Your task to perform on an android device: Open the calendar and show me this week's events? Image 0: 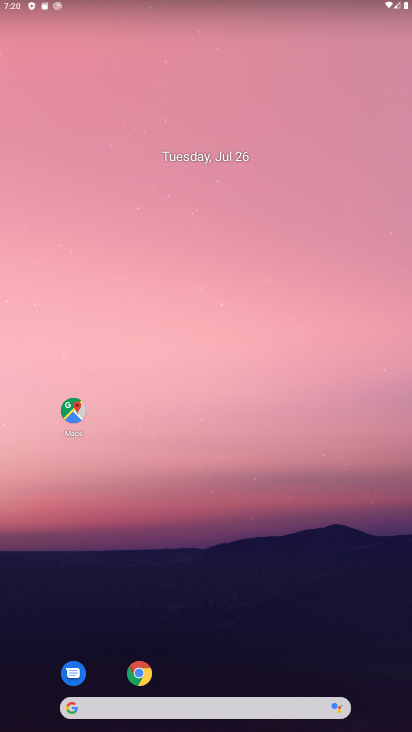
Step 0: drag from (326, 628) to (193, 49)
Your task to perform on an android device: Open the calendar and show me this week's events? Image 1: 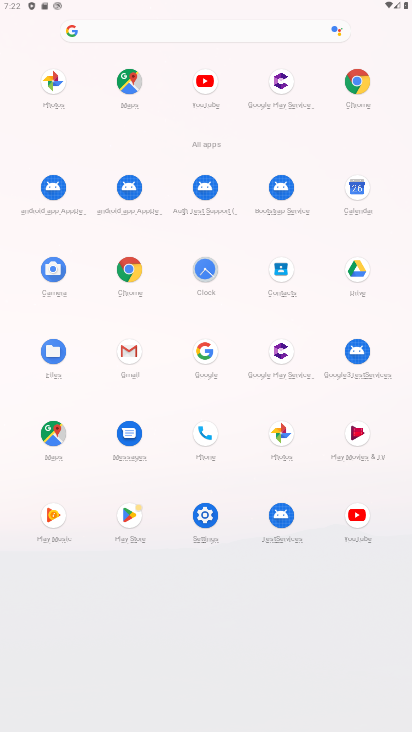
Step 1: click (365, 190)
Your task to perform on an android device: Open the calendar and show me this week's events? Image 2: 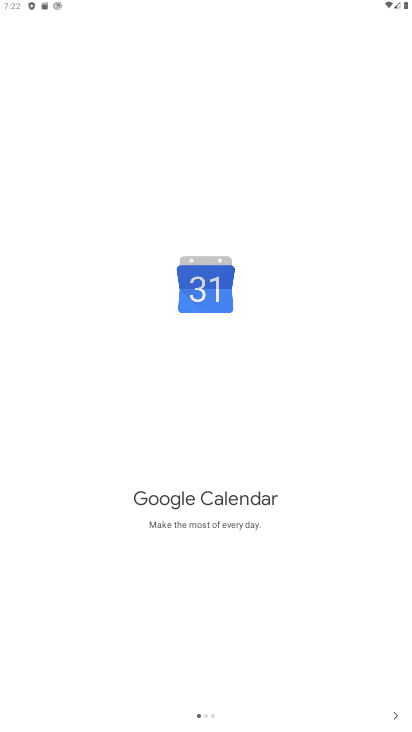
Step 2: click (395, 712)
Your task to perform on an android device: Open the calendar and show me this week's events? Image 3: 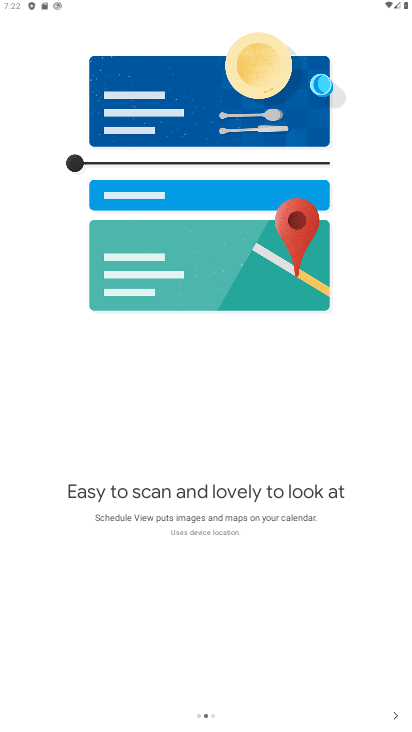
Step 3: click (395, 712)
Your task to perform on an android device: Open the calendar and show me this week's events? Image 4: 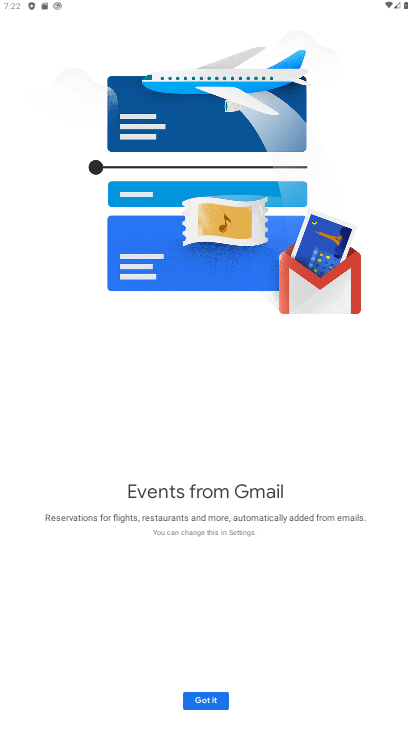
Step 4: click (201, 692)
Your task to perform on an android device: Open the calendar and show me this week's events? Image 5: 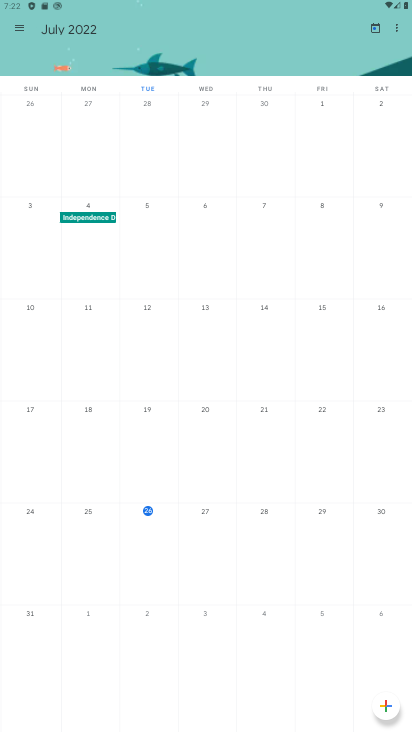
Step 5: task complete